Your task to perform on an android device: Show me the alarms in the clock app Image 0: 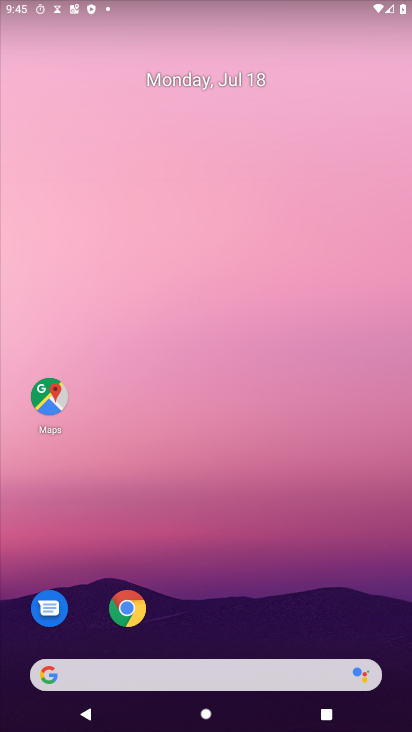
Step 0: drag from (190, 632) to (156, 79)
Your task to perform on an android device: Show me the alarms in the clock app Image 1: 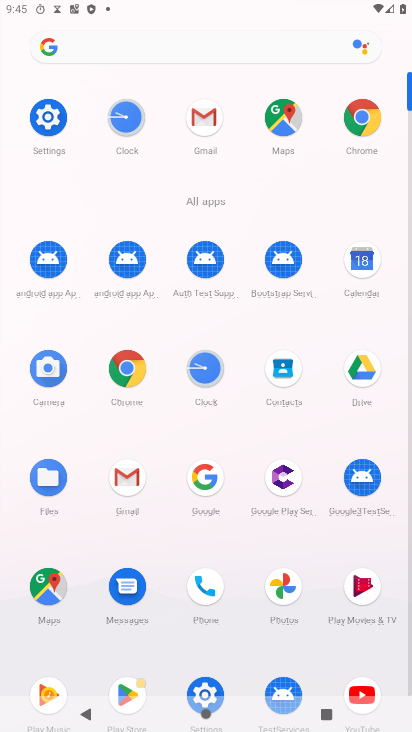
Step 1: click (205, 375)
Your task to perform on an android device: Show me the alarms in the clock app Image 2: 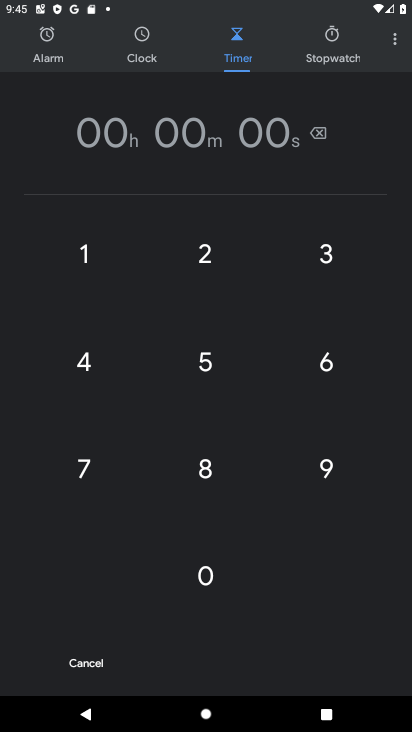
Step 2: click (46, 56)
Your task to perform on an android device: Show me the alarms in the clock app Image 3: 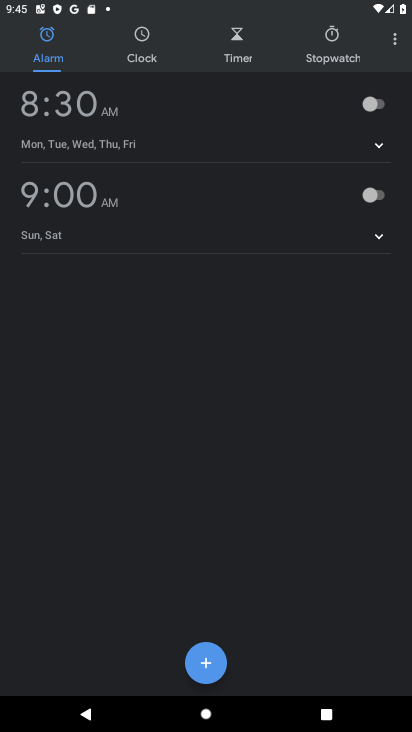
Step 3: task complete